Your task to perform on an android device: Open Chrome and go to the settings page Image 0: 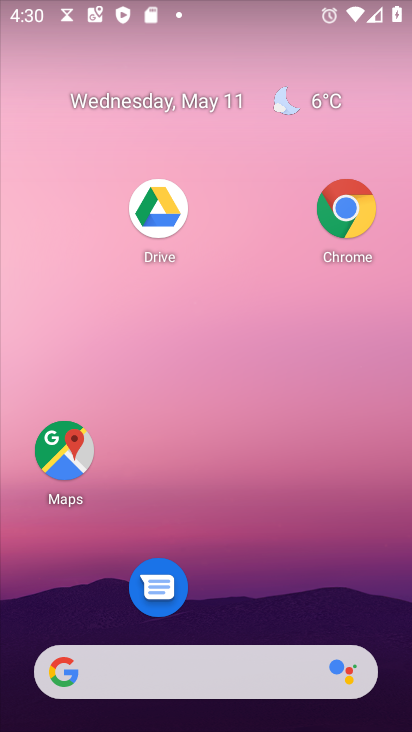
Step 0: click (346, 208)
Your task to perform on an android device: Open Chrome and go to the settings page Image 1: 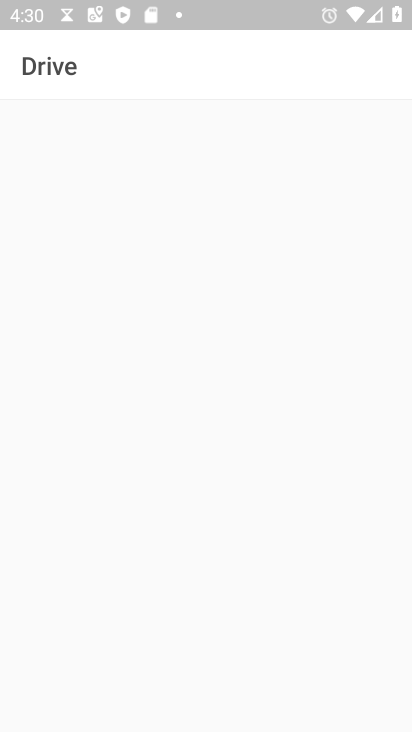
Step 1: press home button
Your task to perform on an android device: Open Chrome and go to the settings page Image 2: 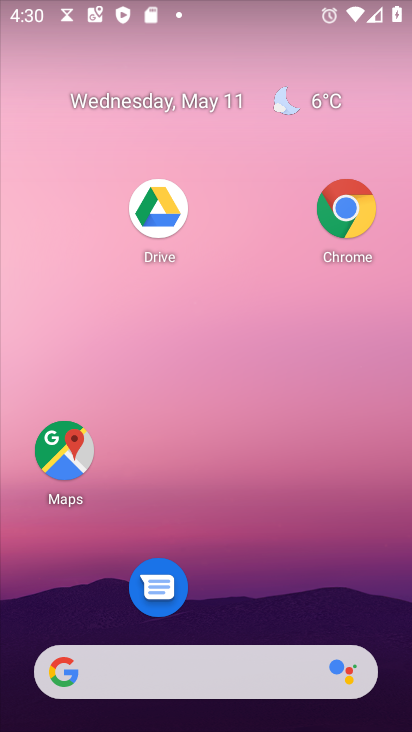
Step 2: click (341, 212)
Your task to perform on an android device: Open Chrome and go to the settings page Image 3: 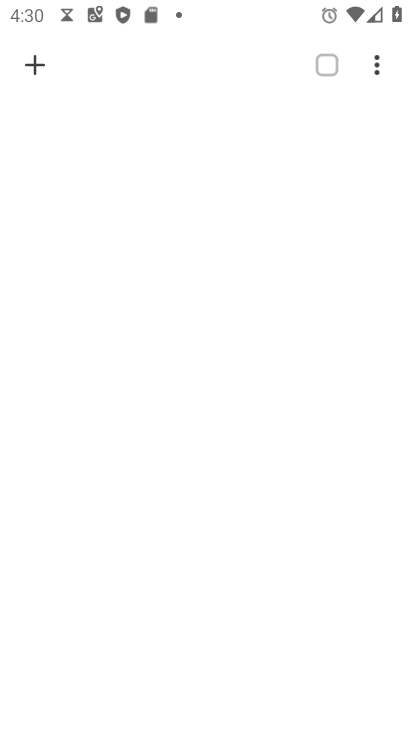
Step 3: click (371, 57)
Your task to perform on an android device: Open Chrome and go to the settings page Image 4: 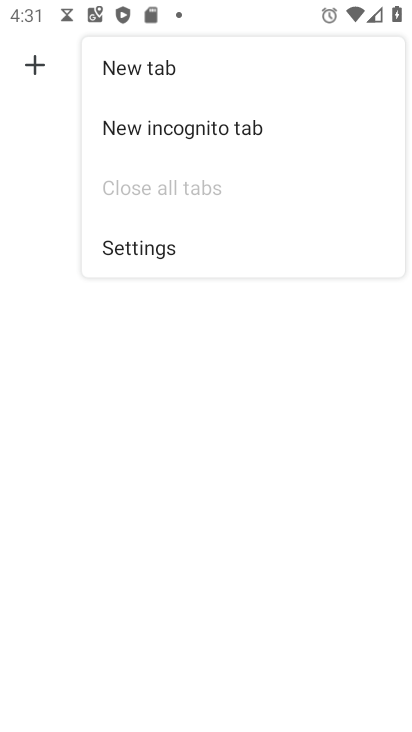
Step 4: click (302, 248)
Your task to perform on an android device: Open Chrome and go to the settings page Image 5: 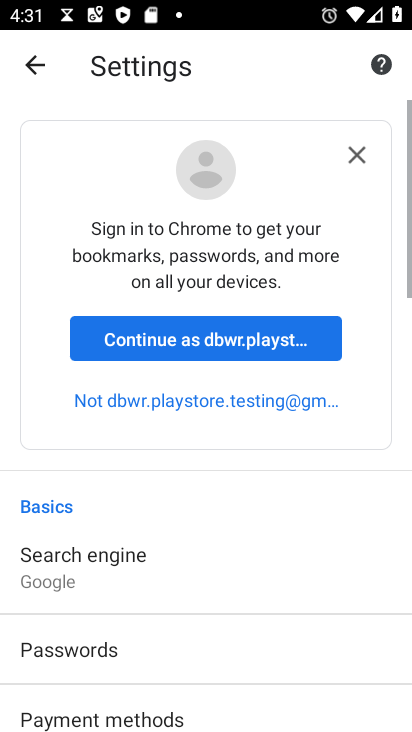
Step 5: task complete